Your task to perform on an android device: Do I have any events today? Image 0: 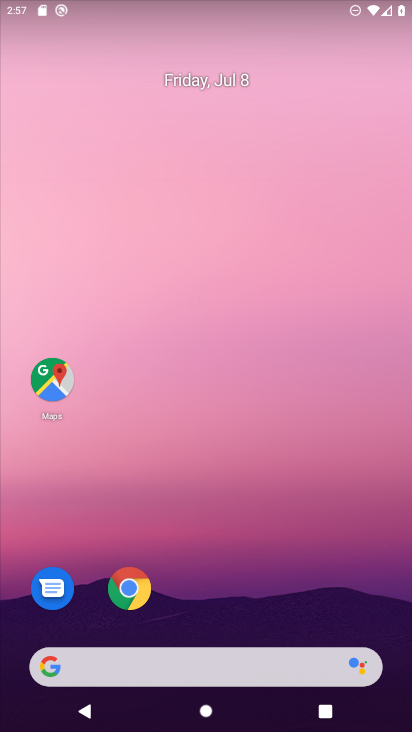
Step 0: press home button
Your task to perform on an android device: Do I have any events today? Image 1: 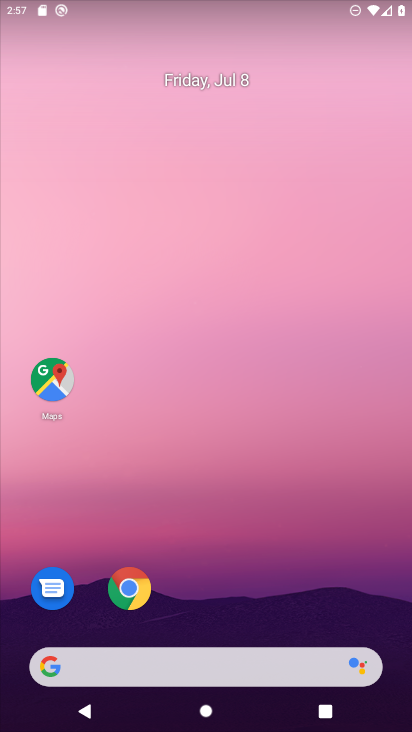
Step 1: drag from (187, 30) to (163, 123)
Your task to perform on an android device: Do I have any events today? Image 2: 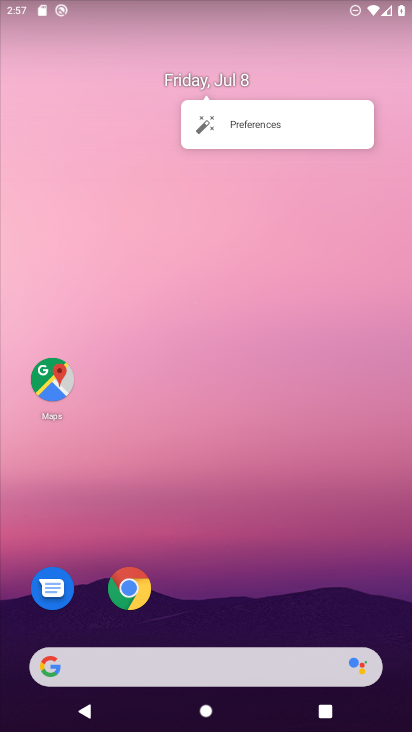
Step 2: drag from (169, 454) to (164, 14)
Your task to perform on an android device: Do I have any events today? Image 3: 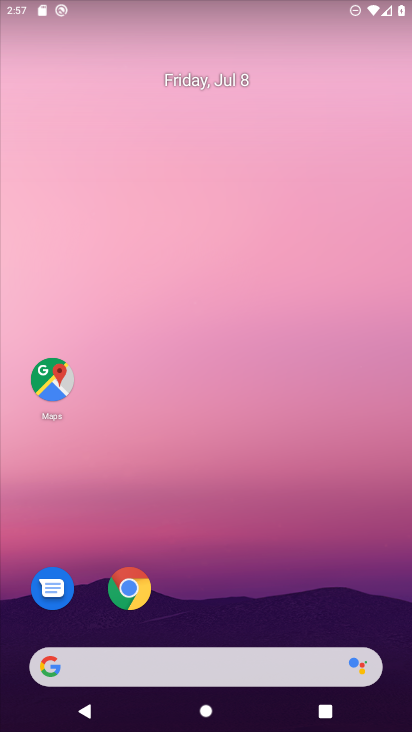
Step 3: drag from (198, 568) to (226, 6)
Your task to perform on an android device: Do I have any events today? Image 4: 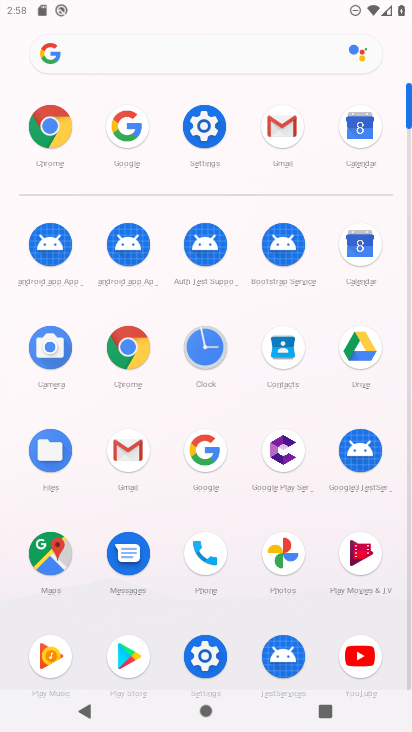
Step 4: click (372, 242)
Your task to perform on an android device: Do I have any events today? Image 5: 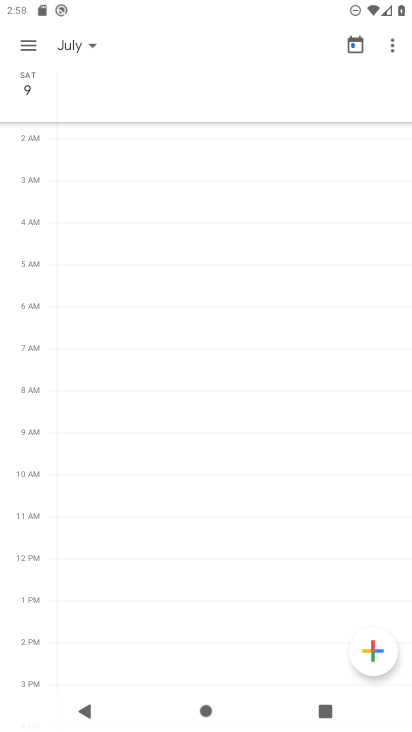
Step 5: click (65, 48)
Your task to perform on an android device: Do I have any events today? Image 6: 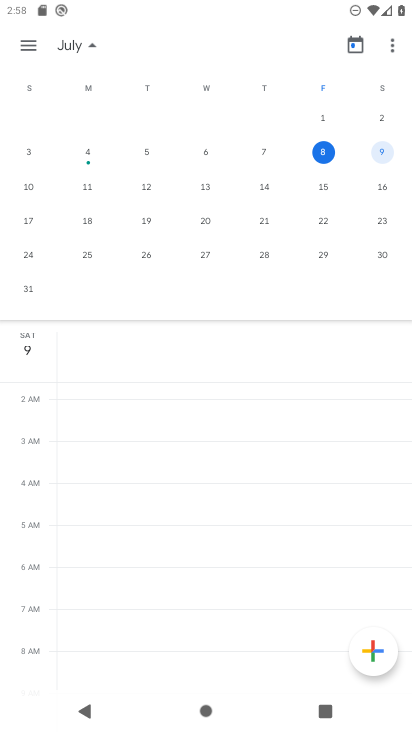
Step 6: click (323, 144)
Your task to perform on an android device: Do I have any events today? Image 7: 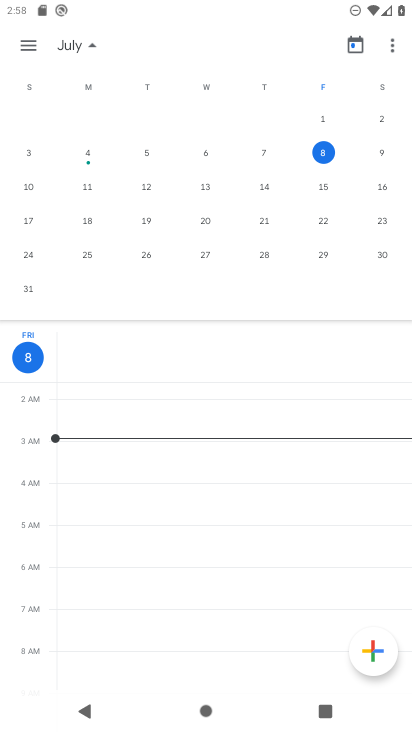
Step 7: drag from (224, 213) to (249, 35)
Your task to perform on an android device: Do I have any events today? Image 8: 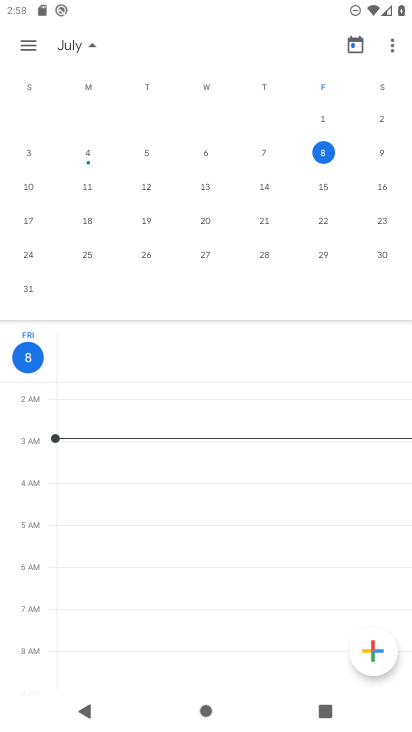
Step 8: click (314, 33)
Your task to perform on an android device: Do I have any events today? Image 9: 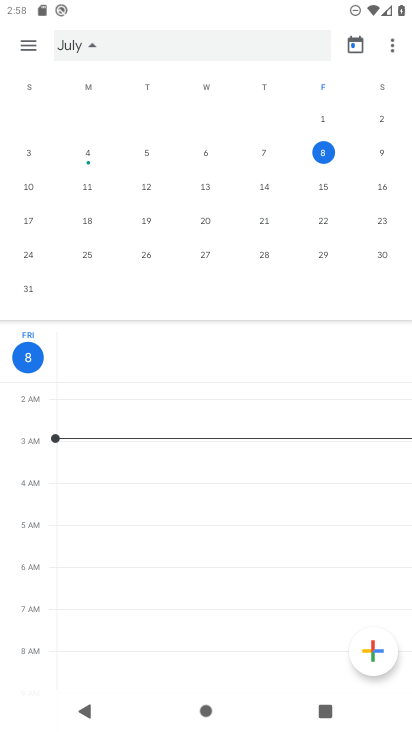
Step 9: task complete